Your task to perform on an android device: Open Amazon Image 0: 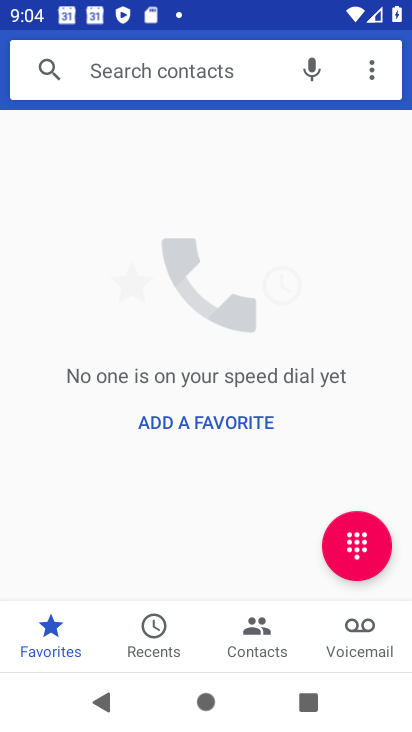
Step 0: press home button
Your task to perform on an android device: Open Amazon Image 1: 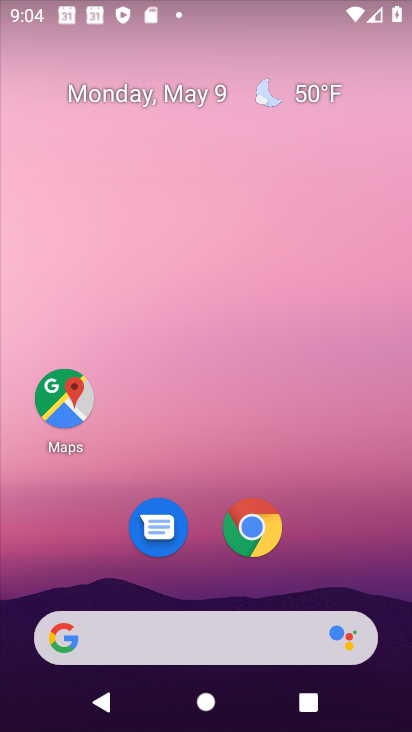
Step 1: click (246, 535)
Your task to perform on an android device: Open Amazon Image 2: 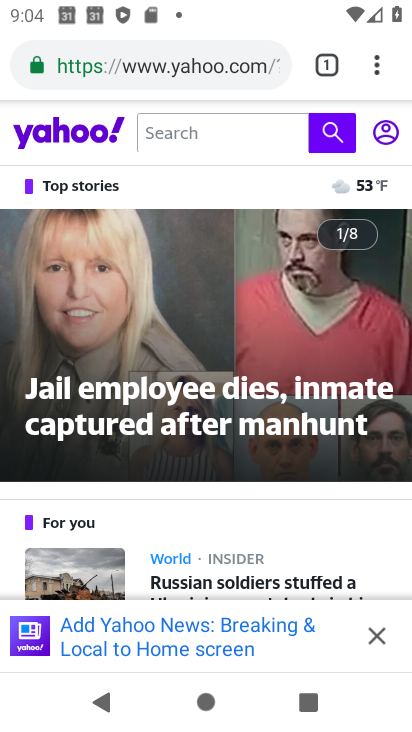
Step 2: click (376, 71)
Your task to perform on an android device: Open Amazon Image 3: 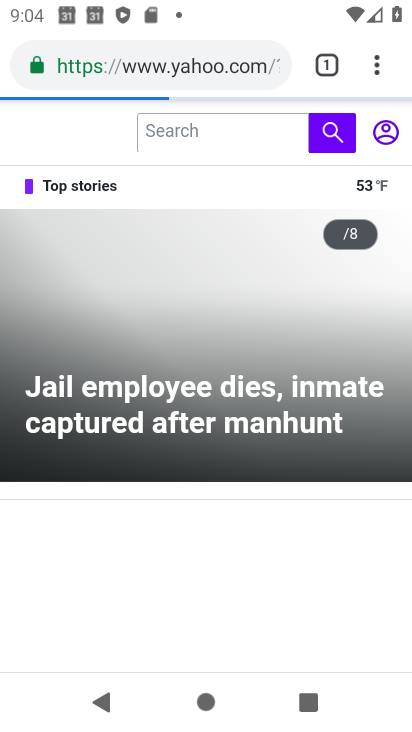
Step 3: click (379, 81)
Your task to perform on an android device: Open Amazon Image 4: 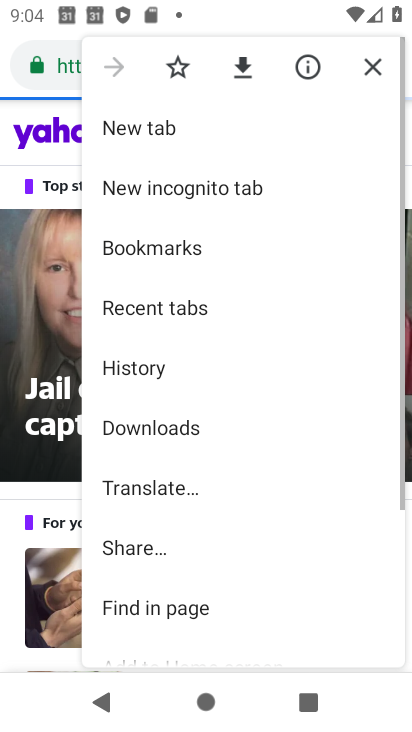
Step 4: click (161, 138)
Your task to perform on an android device: Open Amazon Image 5: 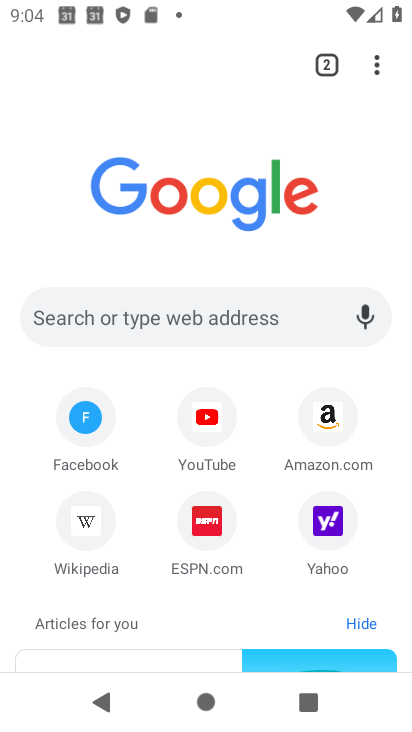
Step 5: click (352, 431)
Your task to perform on an android device: Open Amazon Image 6: 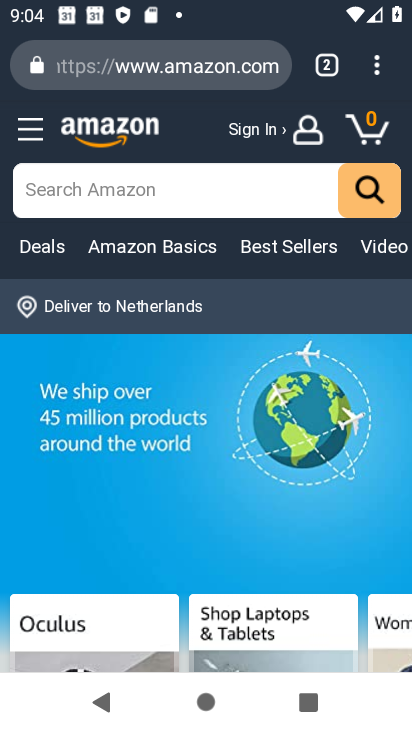
Step 6: task complete